Your task to perform on an android device: open app "Grab" (install if not already installed), go to login, and select forgot password Image 0: 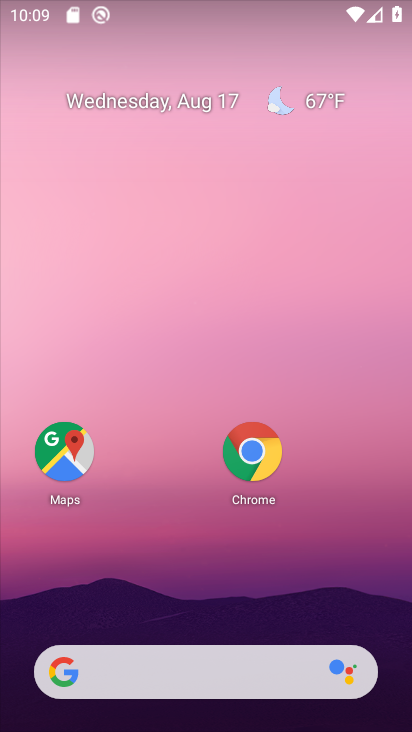
Step 0: drag from (196, 582) to (203, 26)
Your task to perform on an android device: open app "Grab" (install if not already installed), go to login, and select forgot password Image 1: 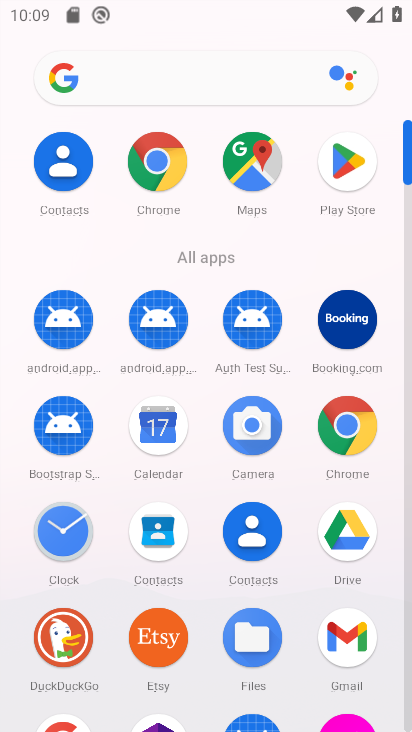
Step 1: click (343, 157)
Your task to perform on an android device: open app "Grab" (install if not already installed), go to login, and select forgot password Image 2: 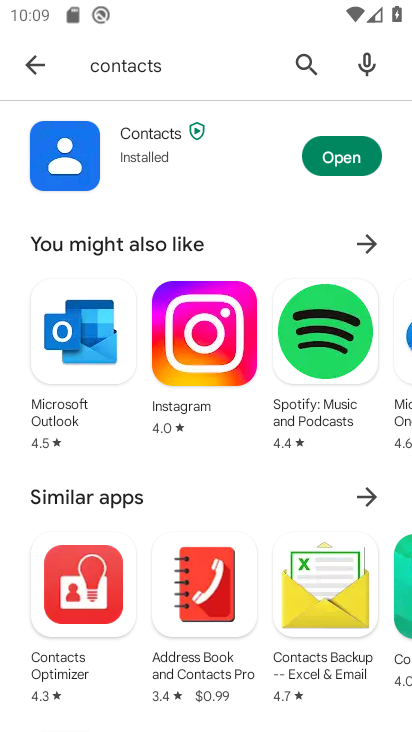
Step 2: click (39, 66)
Your task to perform on an android device: open app "Grab" (install if not already installed), go to login, and select forgot password Image 3: 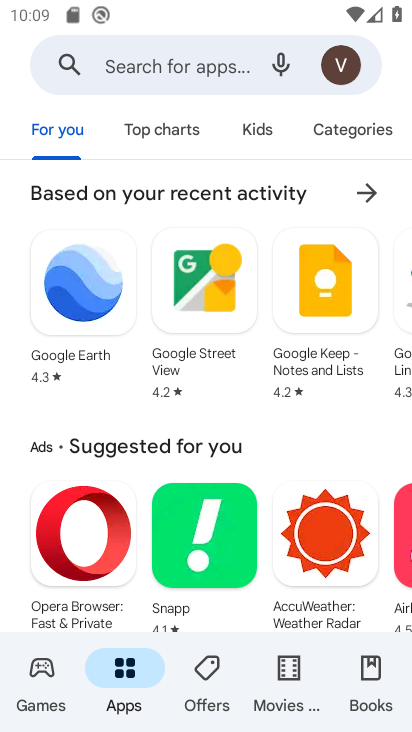
Step 3: click (180, 66)
Your task to perform on an android device: open app "Grab" (install if not already installed), go to login, and select forgot password Image 4: 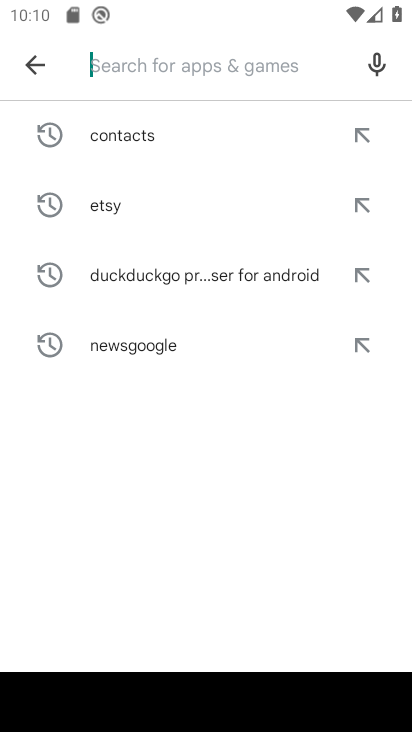
Step 4: type "Grab"
Your task to perform on an android device: open app "Grab" (install if not already installed), go to login, and select forgot password Image 5: 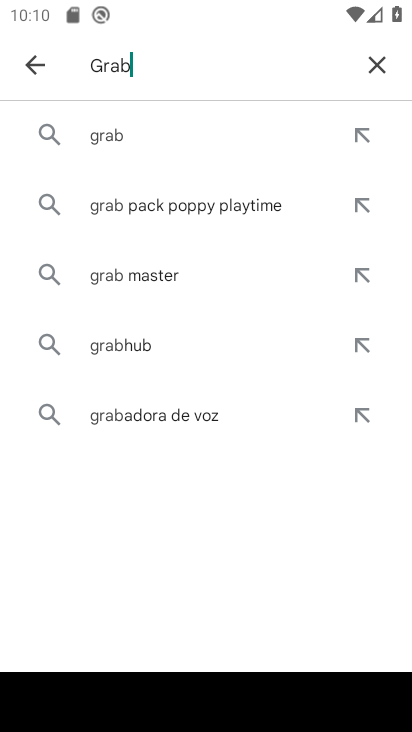
Step 5: click (97, 138)
Your task to perform on an android device: open app "Grab" (install if not already installed), go to login, and select forgot password Image 6: 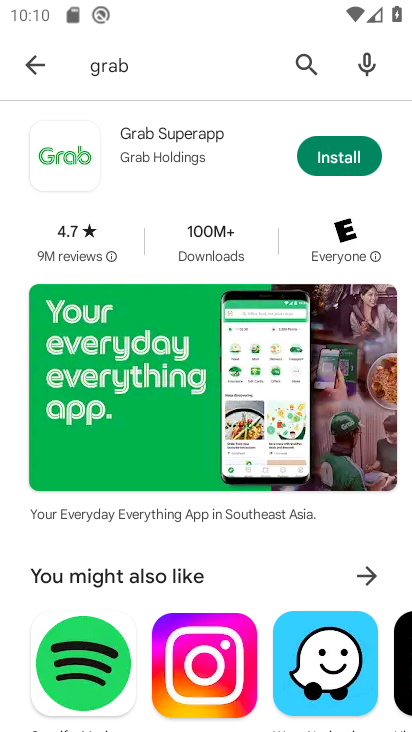
Step 6: click (340, 150)
Your task to perform on an android device: open app "Grab" (install if not already installed), go to login, and select forgot password Image 7: 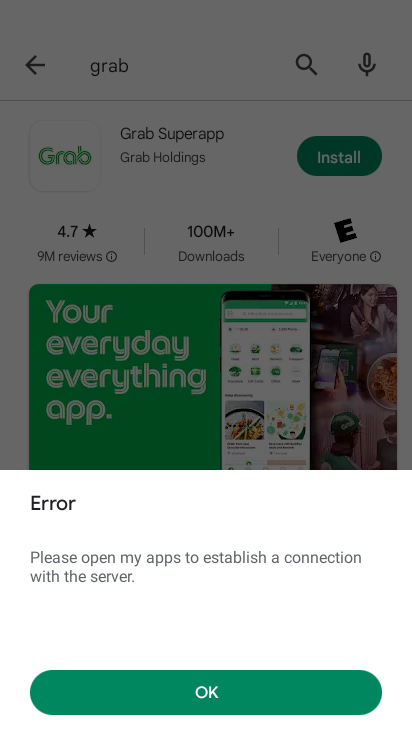
Step 7: click (216, 704)
Your task to perform on an android device: open app "Grab" (install if not already installed), go to login, and select forgot password Image 8: 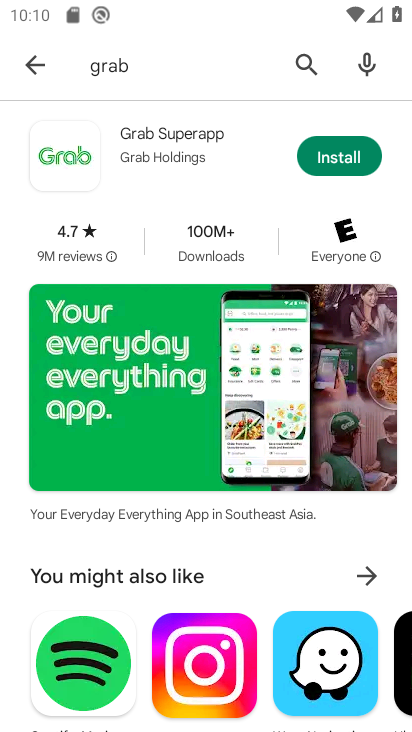
Step 8: task complete